Your task to perform on an android device: Search for hotels in London Image 0: 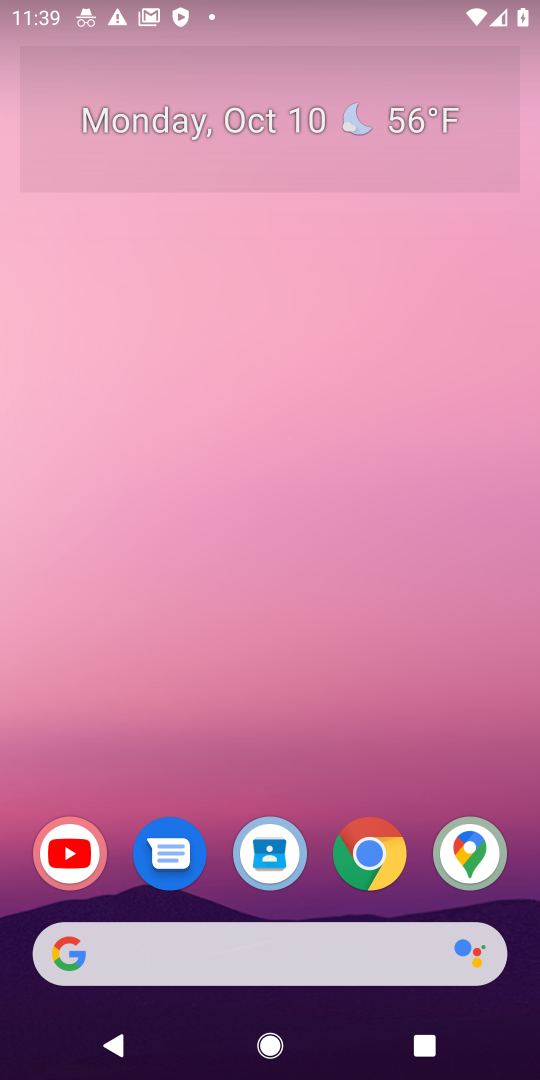
Step 0: press home button
Your task to perform on an android device: Search for hotels in London Image 1: 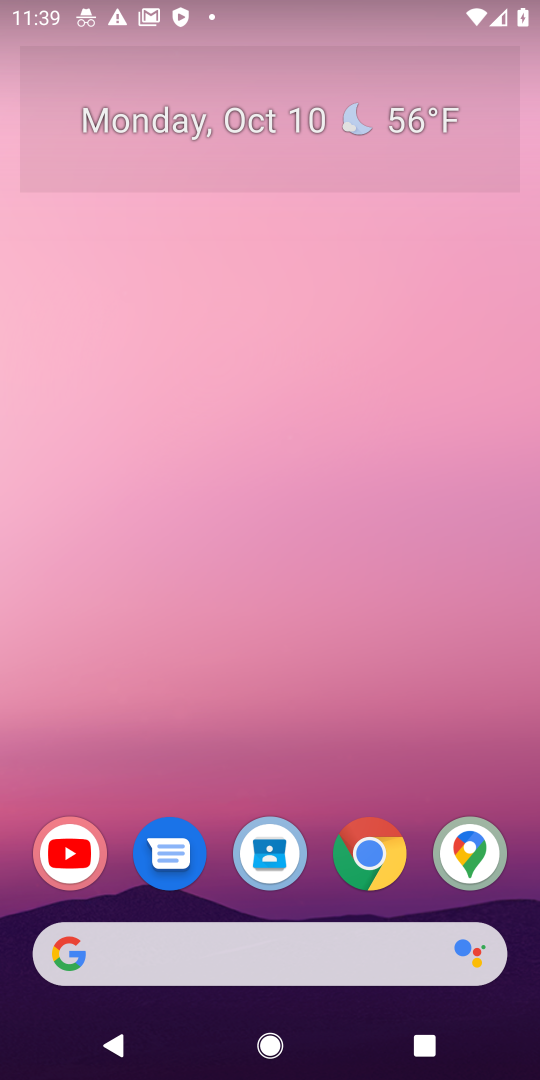
Step 1: click (266, 960)
Your task to perform on an android device: Search for hotels in London Image 2: 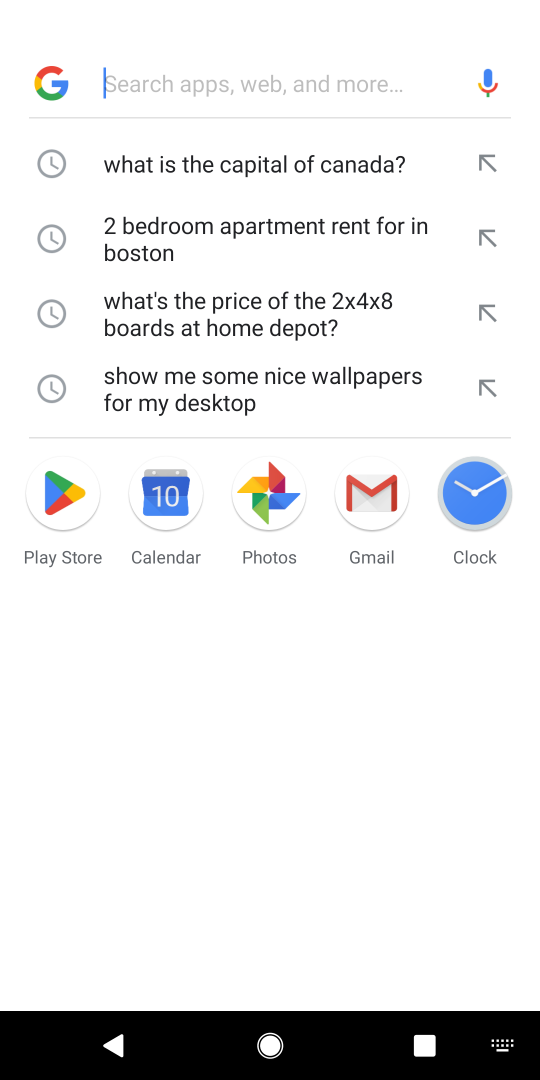
Step 2: type "hotels in London"
Your task to perform on an android device: Search for hotels in London Image 3: 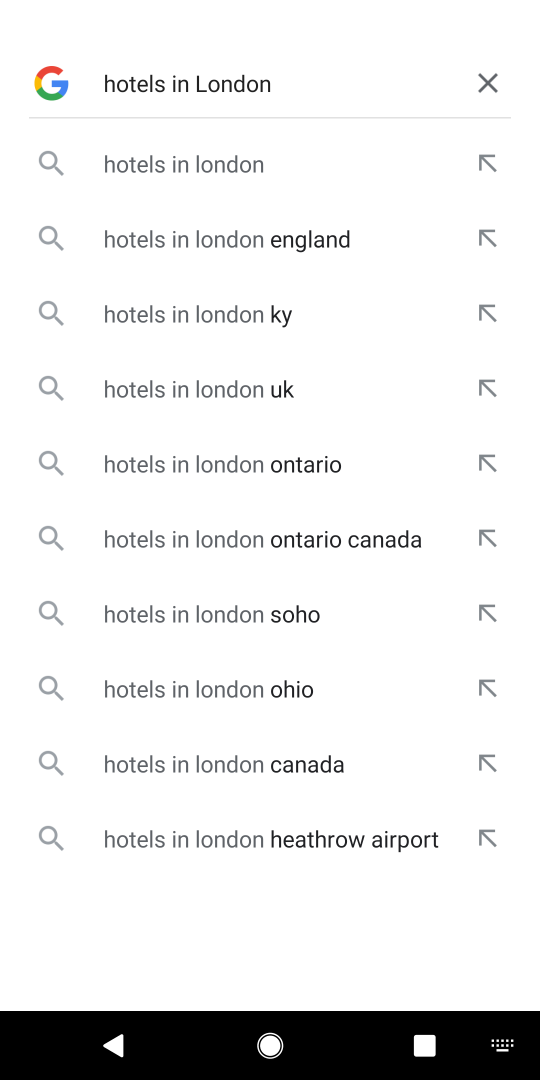
Step 3: press enter
Your task to perform on an android device: Search for hotels in London Image 4: 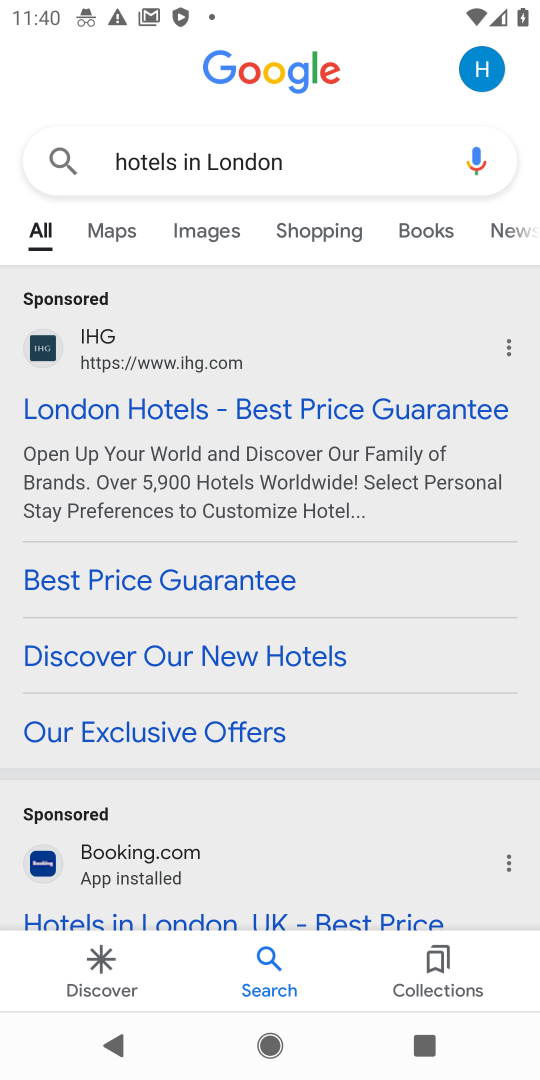
Step 4: drag from (347, 717) to (376, 493)
Your task to perform on an android device: Search for hotels in London Image 5: 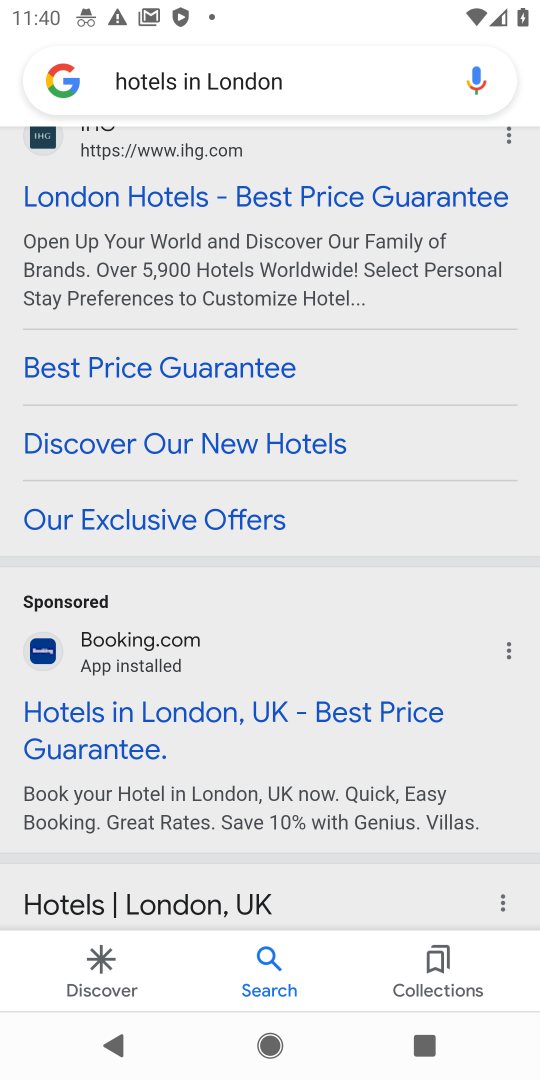
Step 5: click (219, 732)
Your task to perform on an android device: Search for hotels in London Image 6: 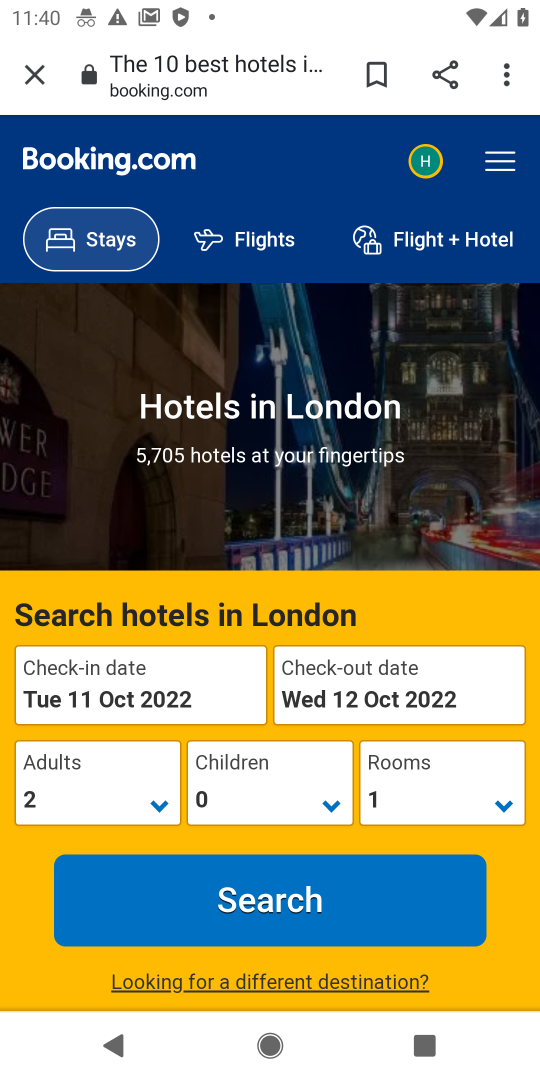
Step 6: click (269, 906)
Your task to perform on an android device: Search for hotels in London Image 7: 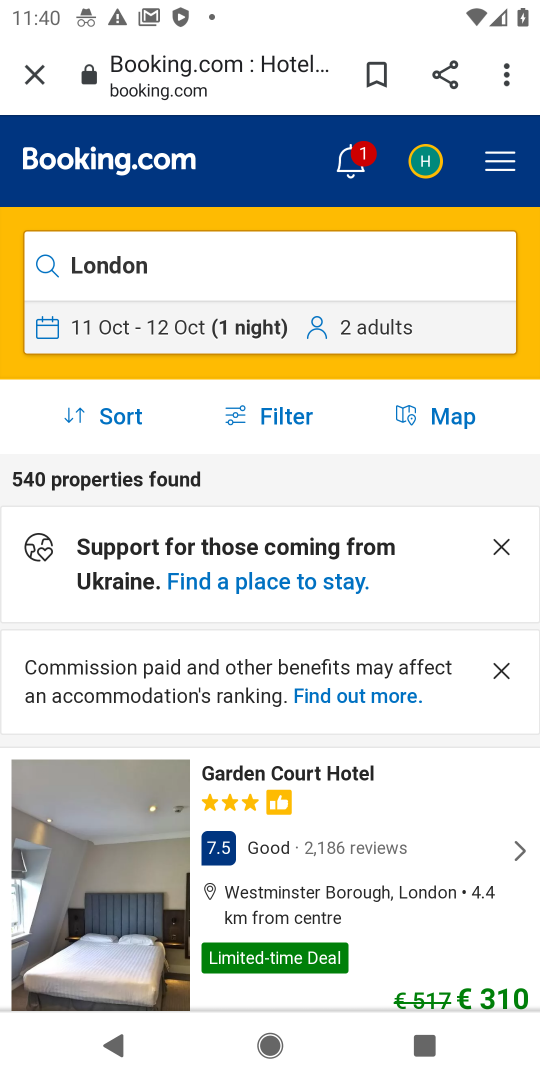
Step 7: task complete